Your task to perform on an android device: check android version Image 0: 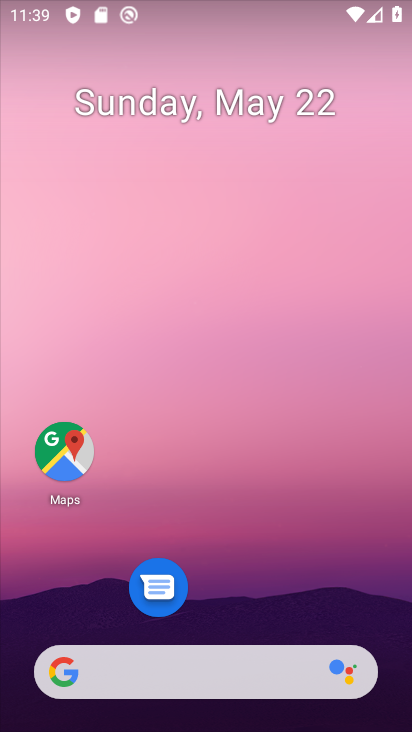
Step 0: drag from (198, 637) to (127, 34)
Your task to perform on an android device: check android version Image 1: 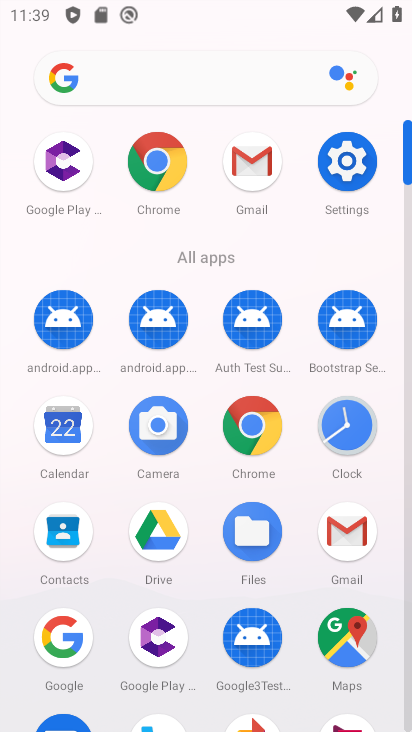
Step 1: click (326, 153)
Your task to perform on an android device: check android version Image 2: 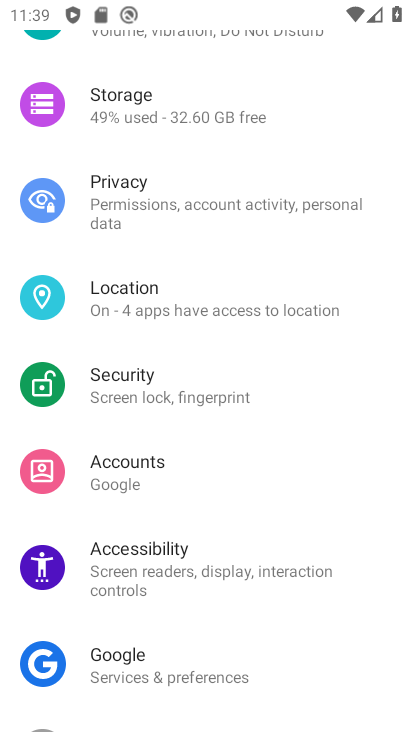
Step 2: drag from (248, 610) to (164, 154)
Your task to perform on an android device: check android version Image 3: 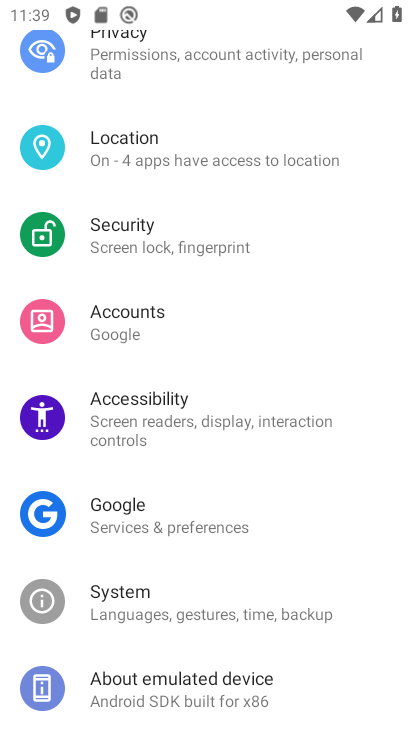
Step 3: click (132, 701)
Your task to perform on an android device: check android version Image 4: 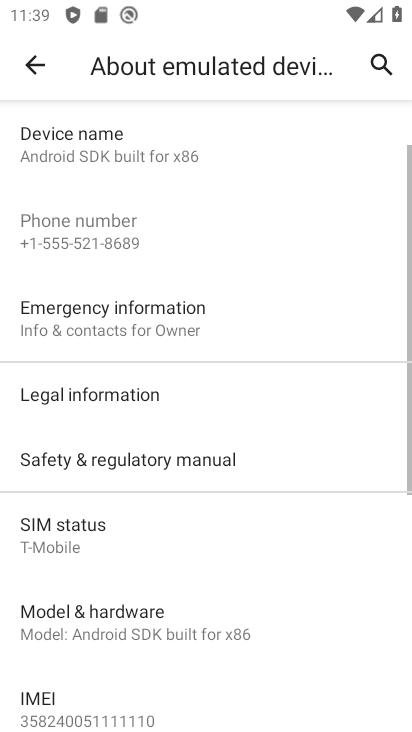
Step 4: task complete